Your task to perform on an android device: set an alarm Image 0: 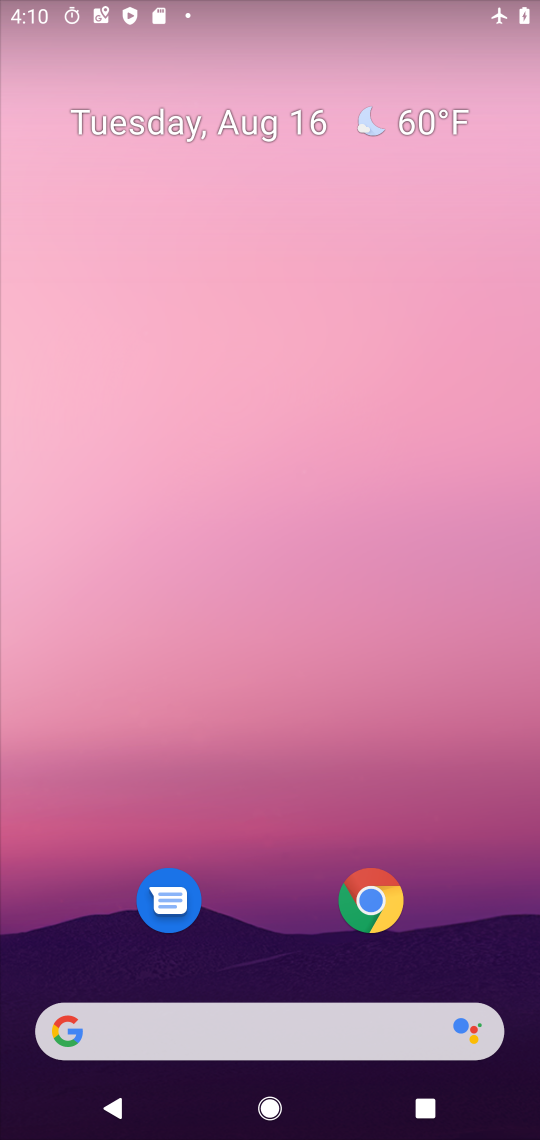
Step 0: drag from (270, 972) to (215, 87)
Your task to perform on an android device: set an alarm Image 1: 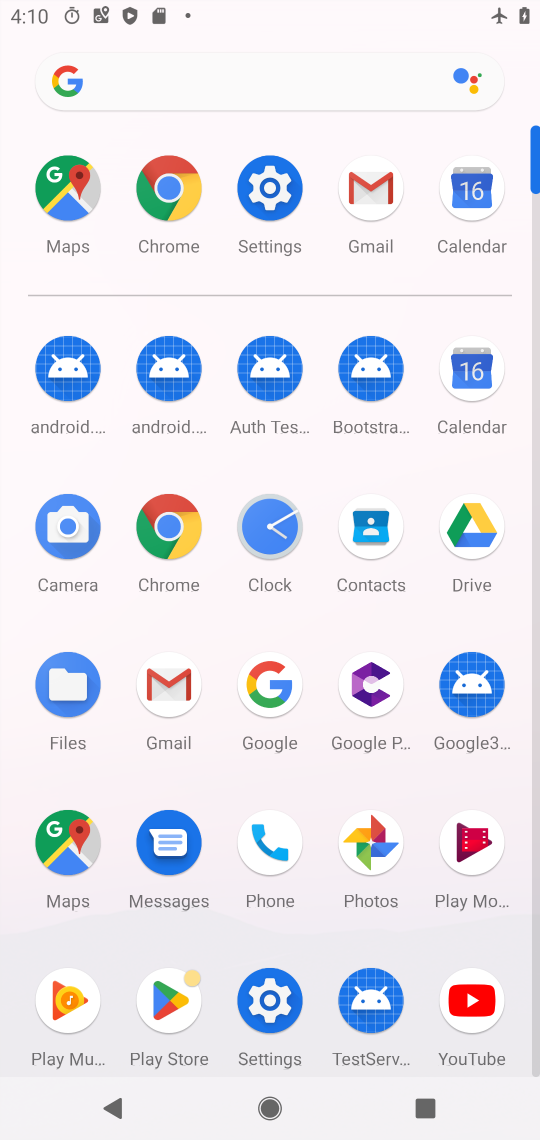
Step 1: click (253, 530)
Your task to perform on an android device: set an alarm Image 2: 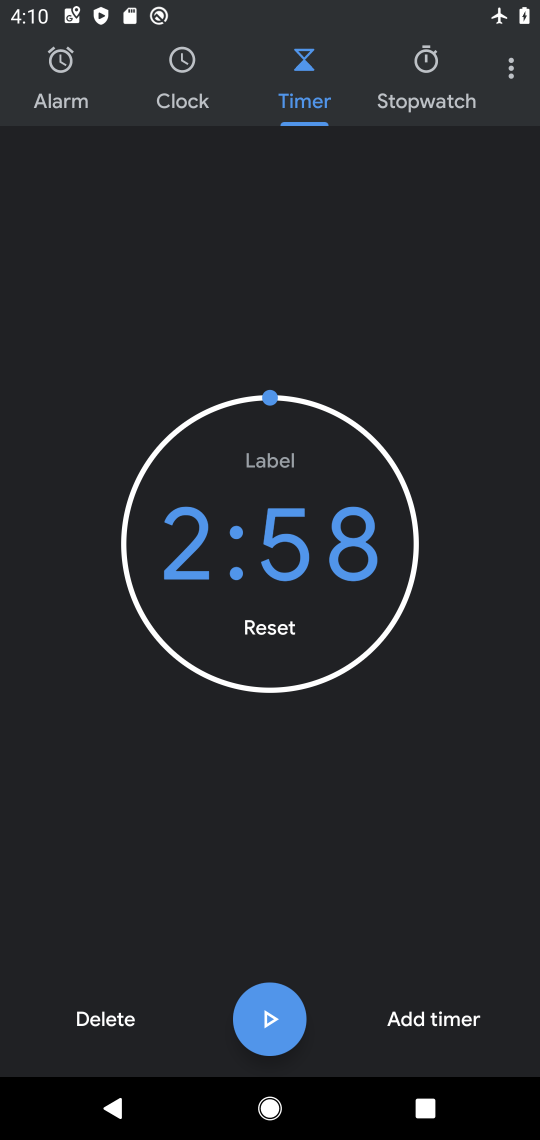
Step 2: click (68, 82)
Your task to perform on an android device: set an alarm Image 3: 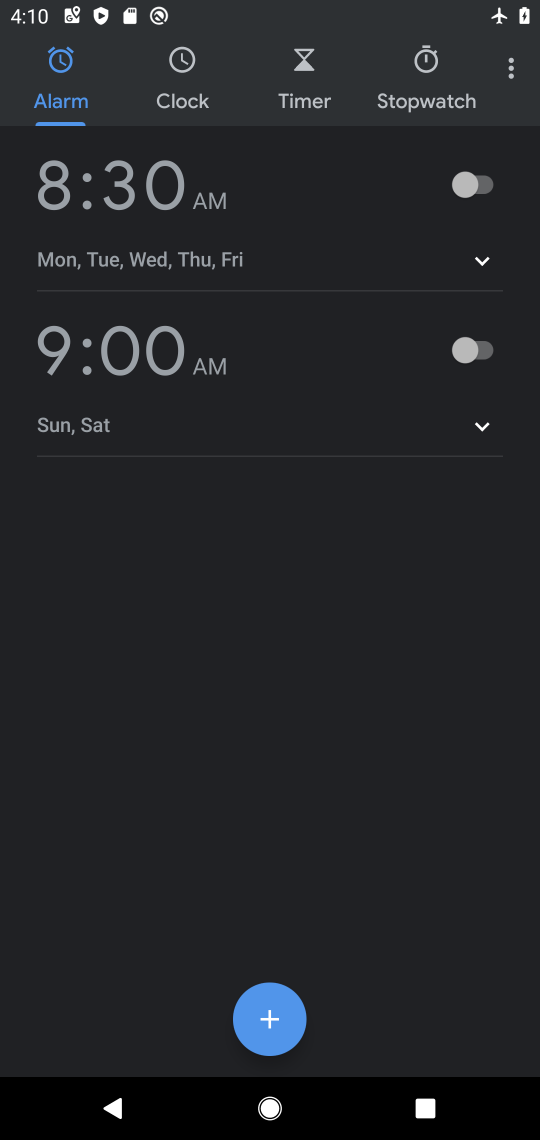
Step 3: click (267, 1027)
Your task to perform on an android device: set an alarm Image 4: 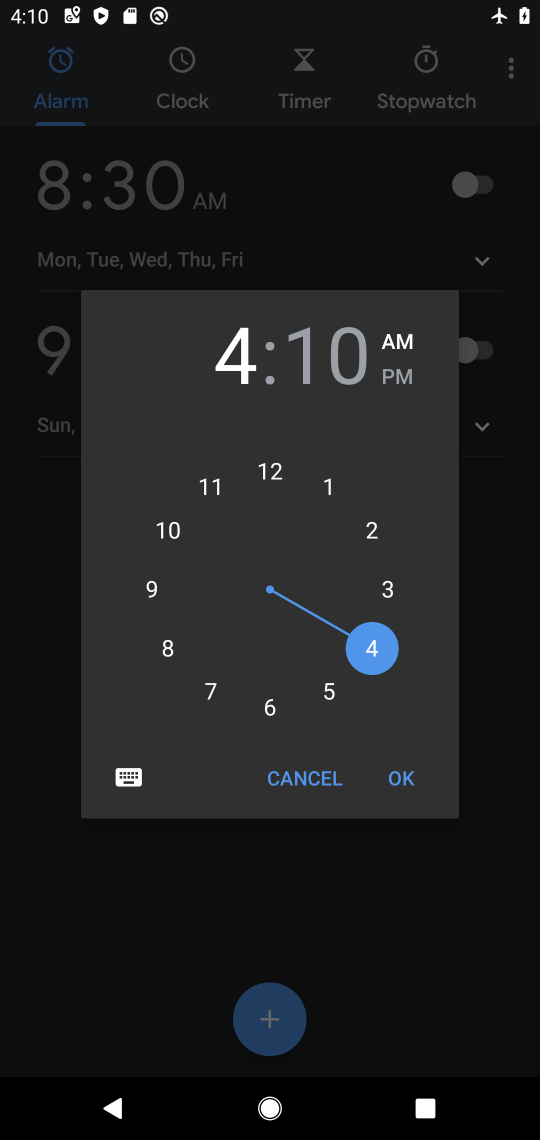
Step 4: click (171, 649)
Your task to perform on an android device: set an alarm Image 5: 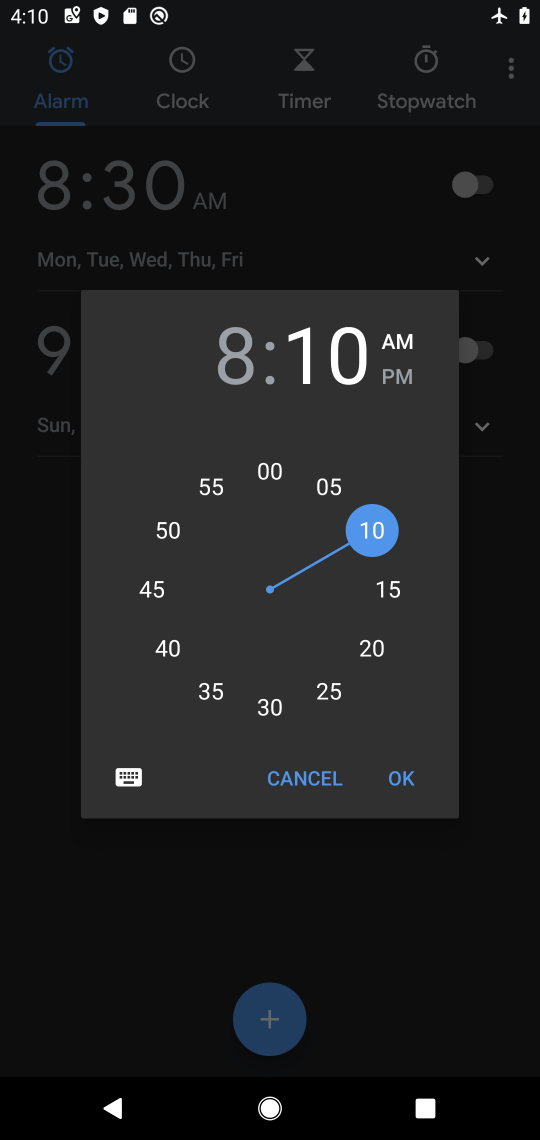
Step 5: click (399, 774)
Your task to perform on an android device: set an alarm Image 6: 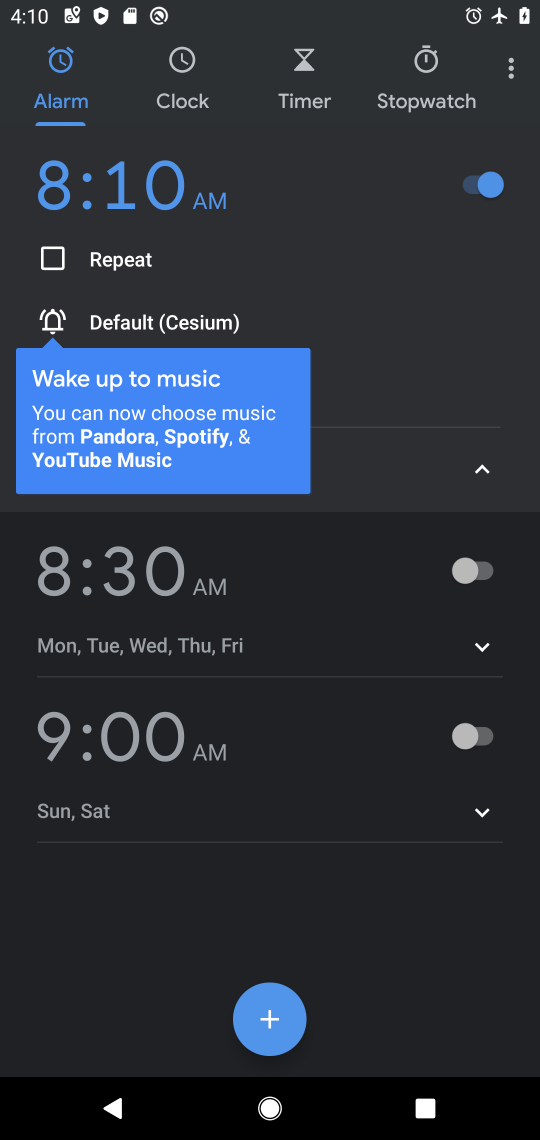
Step 6: task complete